Your task to perform on an android device: Open Google Chrome and open the bookmarks view Image 0: 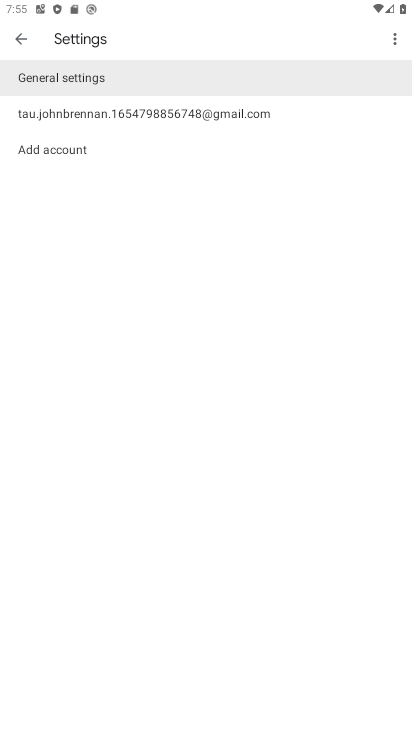
Step 0: press home button
Your task to perform on an android device: Open Google Chrome and open the bookmarks view Image 1: 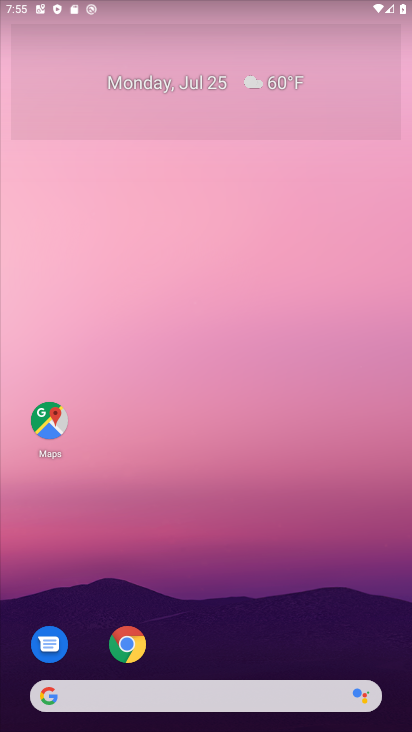
Step 1: click (131, 647)
Your task to perform on an android device: Open Google Chrome and open the bookmarks view Image 2: 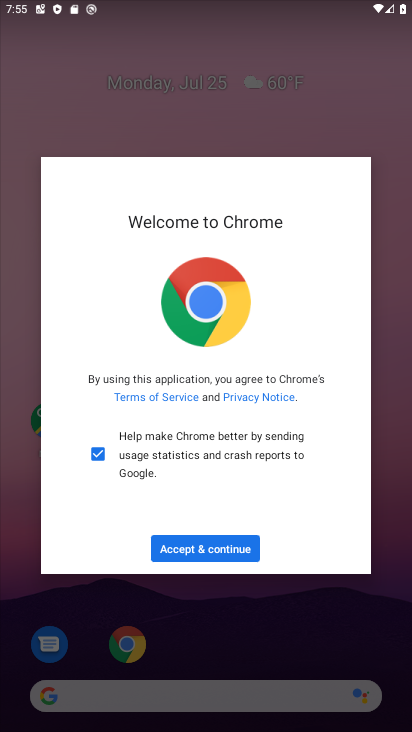
Step 2: click (238, 544)
Your task to perform on an android device: Open Google Chrome and open the bookmarks view Image 3: 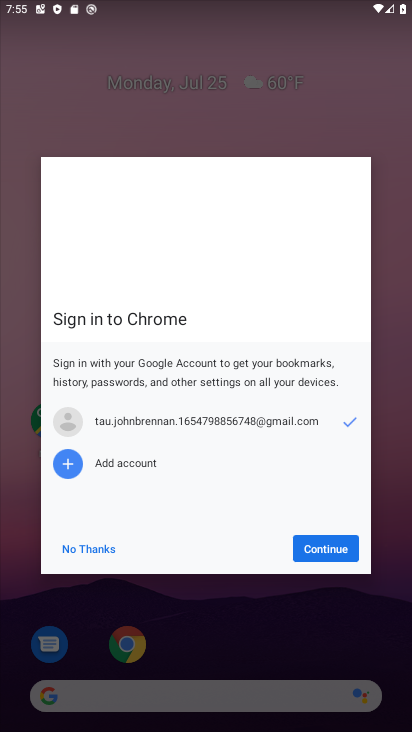
Step 3: click (337, 539)
Your task to perform on an android device: Open Google Chrome and open the bookmarks view Image 4: 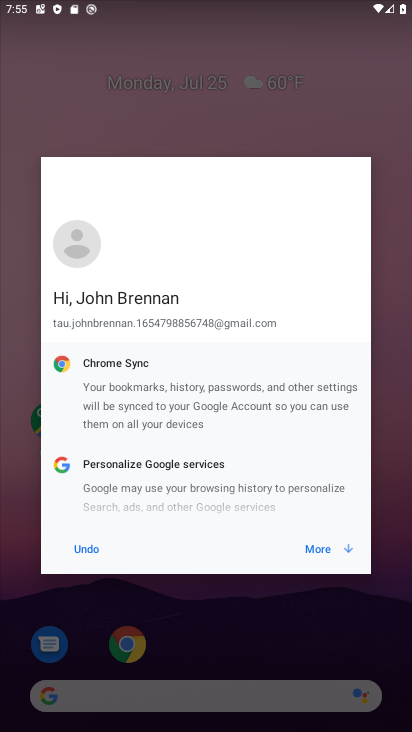
Step 4: click (331, 551)
Your task to perform on an android device: Open Google Chrome and open the bookmarks view Image 5: 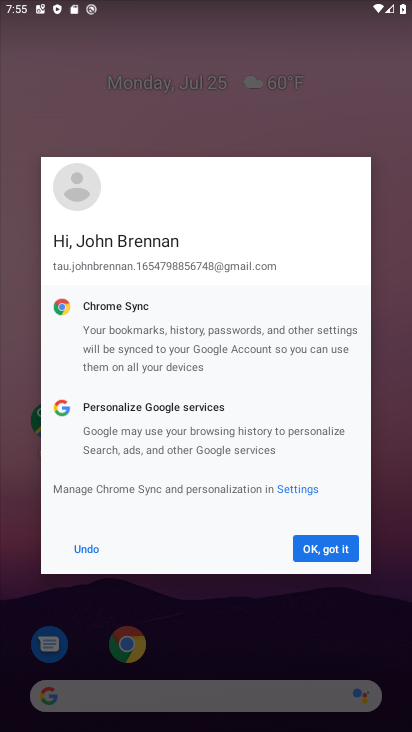
Step 5: click (346, 546)
Your task to perform on an android device: Open Google Chrome and open the bookmarks view Image 6: 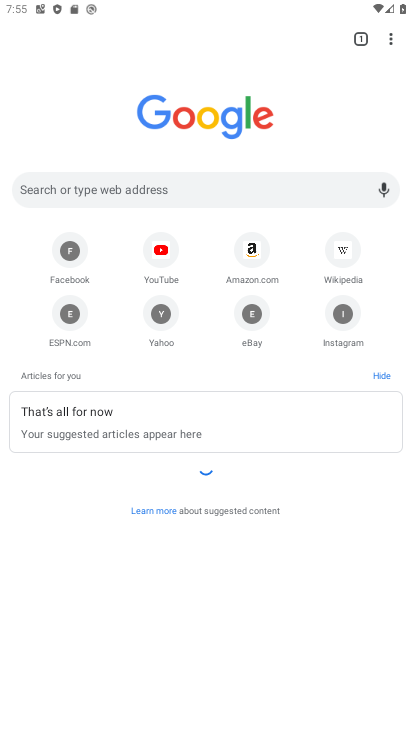
Step 6: click (388, 40)
Your task to perform on an android device: Open Google Chrome and open the bookmarks view Image 7: 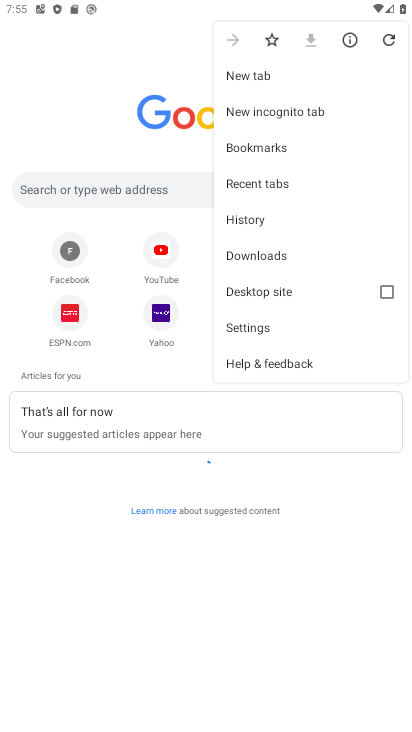
Step 7: click (265, 148)
Your task to perform on an android device: Open Google Chrome and open the bookmarks view Image 8: 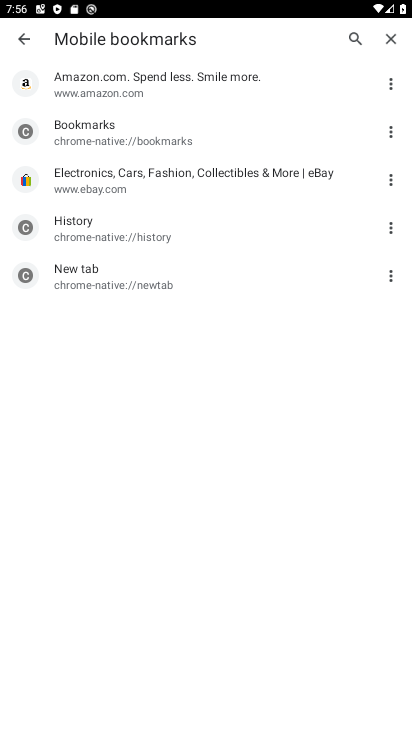
Step 8: task complete